Your task to perform on an android device: allow cookies in the chrome app Image 0: 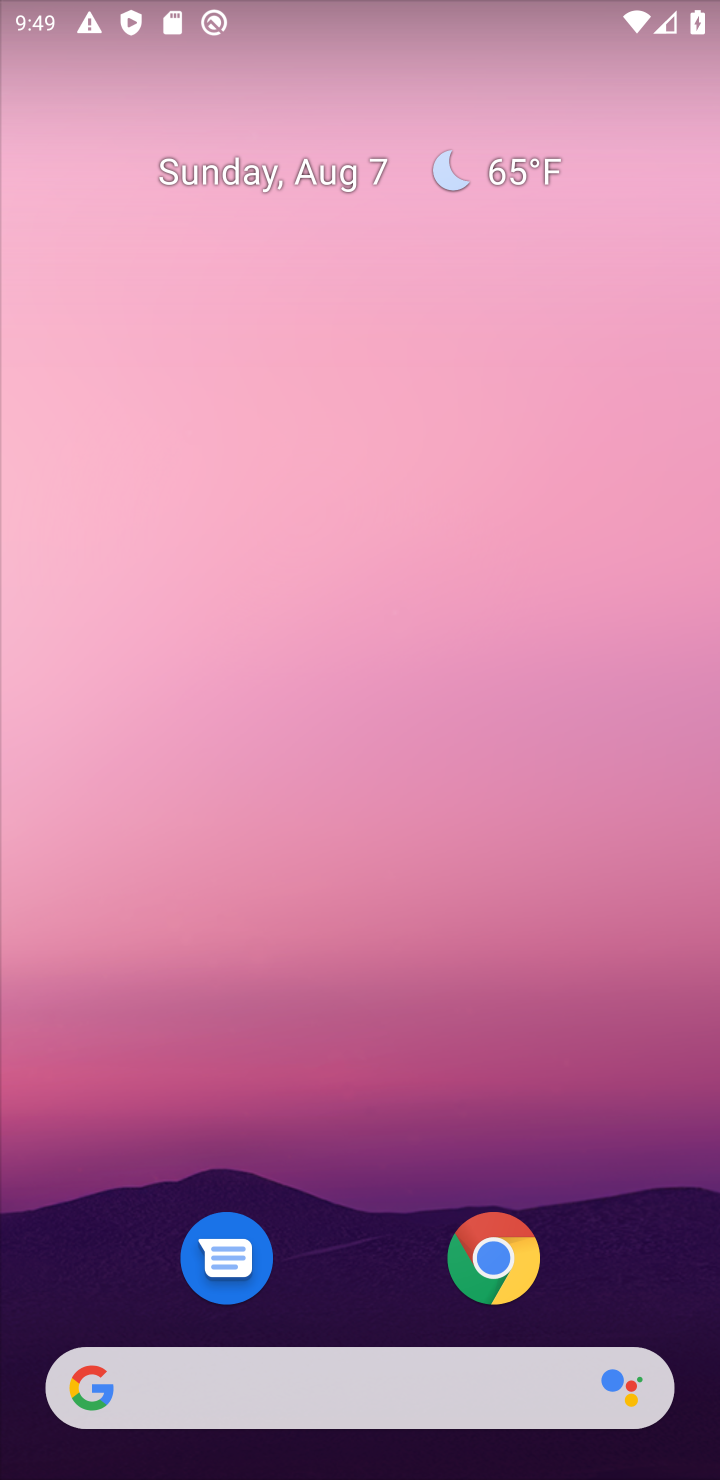
Step 0: drag from (347, 1228) to (340, 500)
Your task to perform on an android device: allow cookies in the chrome app Image 1: 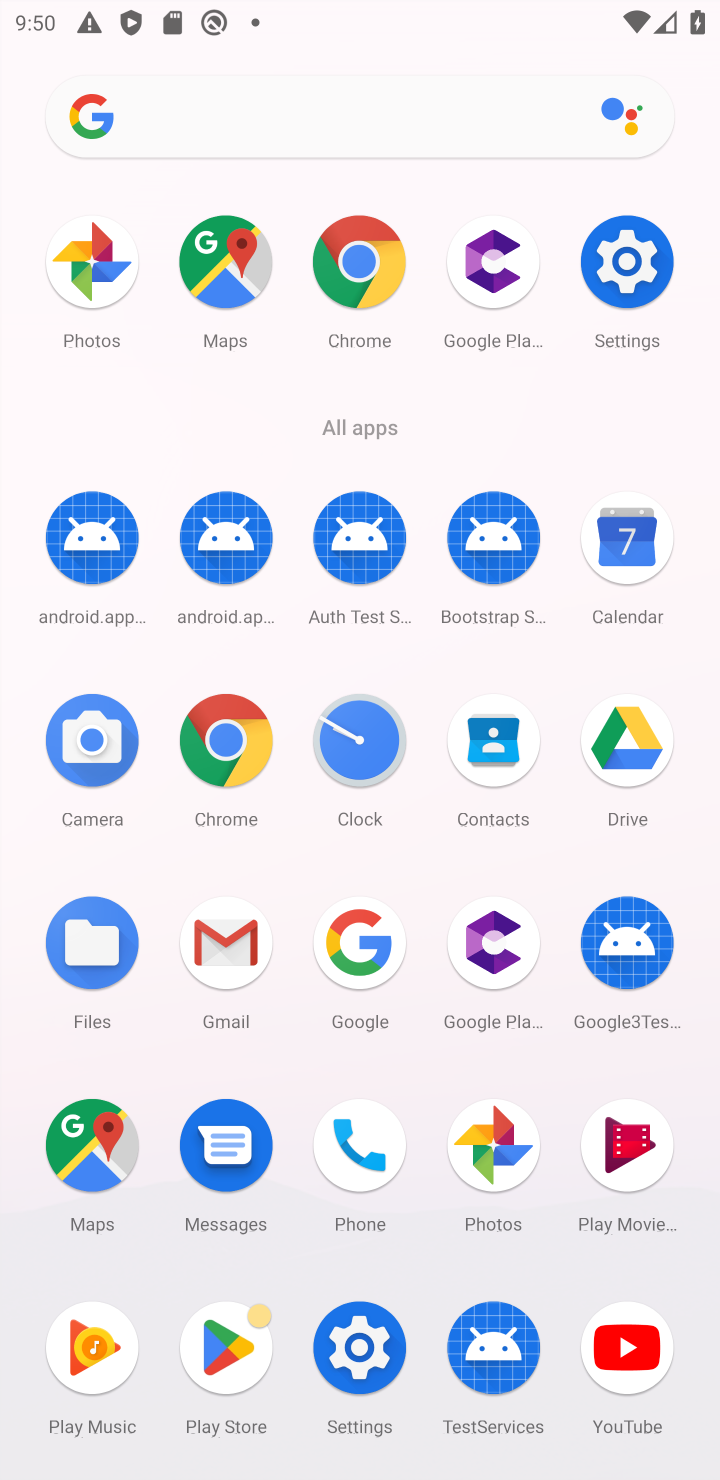
Step 1: click (229, 800)
Your task to perform on an android device: allow cookies in the chrome app Image 2: 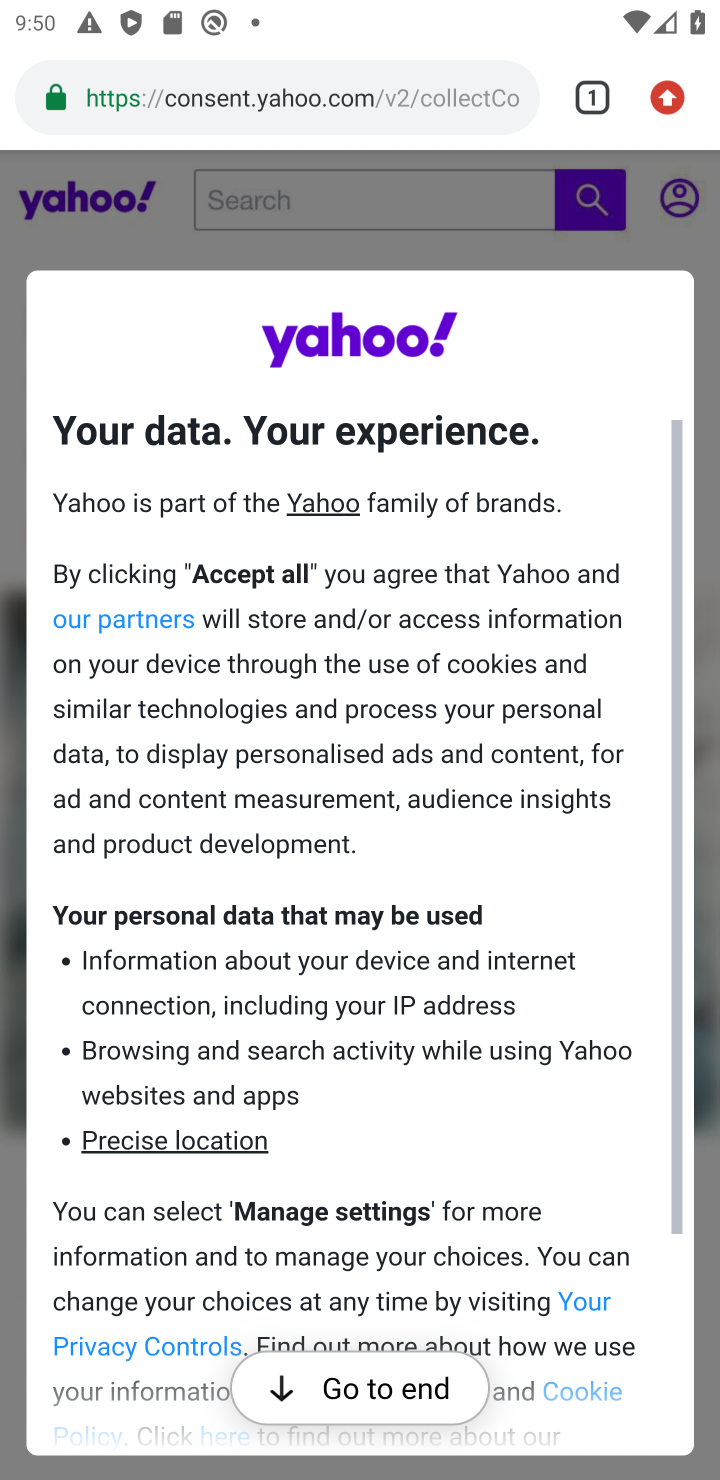
Step 2: drag from (659, 92) to (289, 1296)
Your task to perform on an android device: allow cookies in the chrome app Image 3: 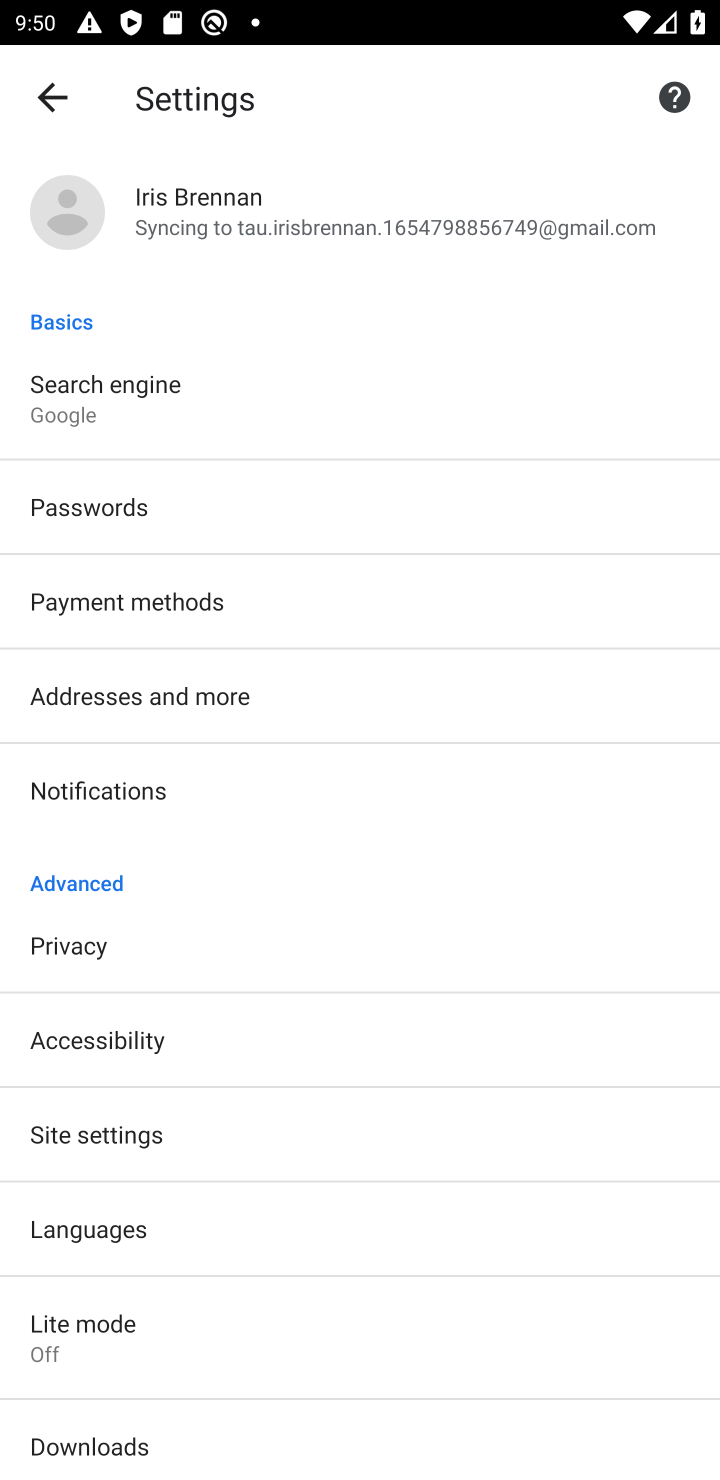
Step 3: drag from (204, 1098) to (195, 828)
Your task to perform on an android device: allow cookies in the chrome app Image 4: 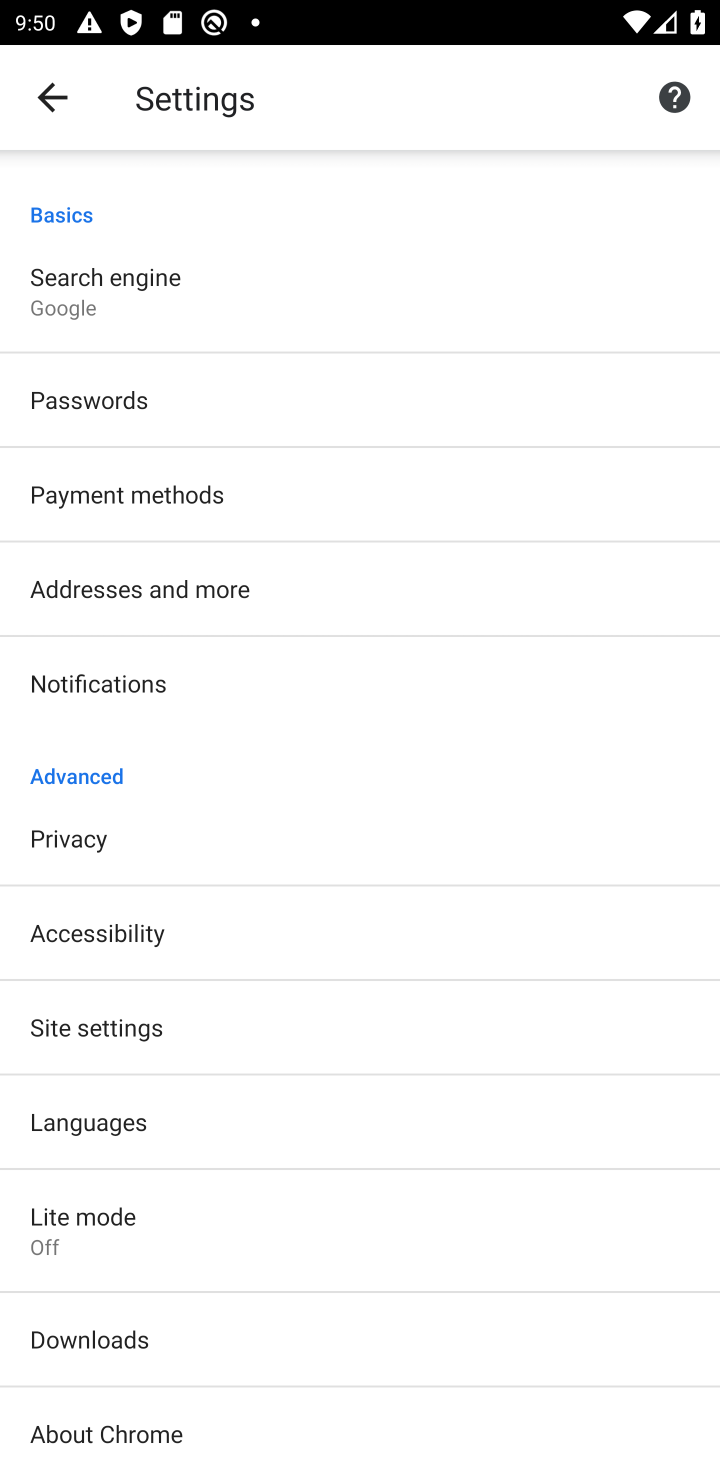
Step 4: click (162, 1020)
Your task to perform on an android device: allow cookies in the chrome app Image 5: 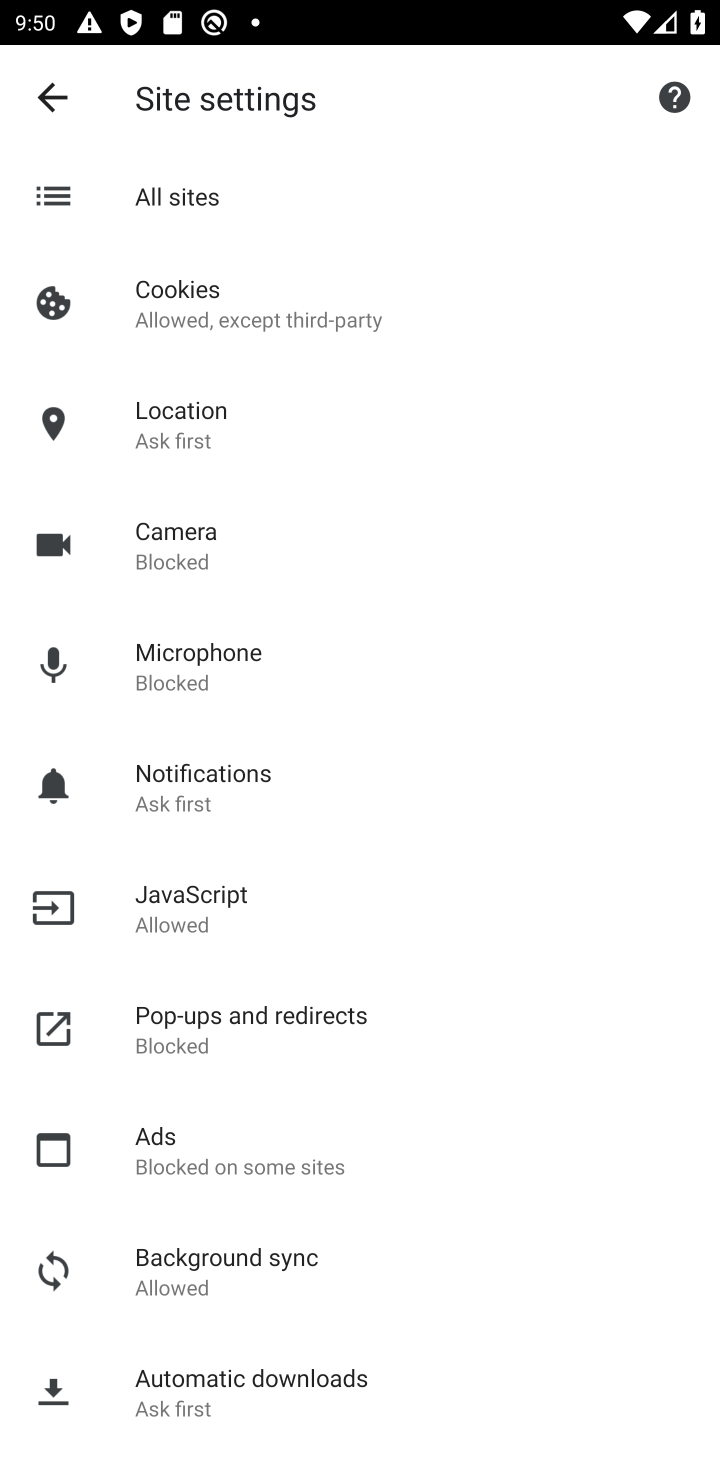
Step 5: click (188, 330)
Your task to perform on an android device: allow cookies in the chrome app Image 6: 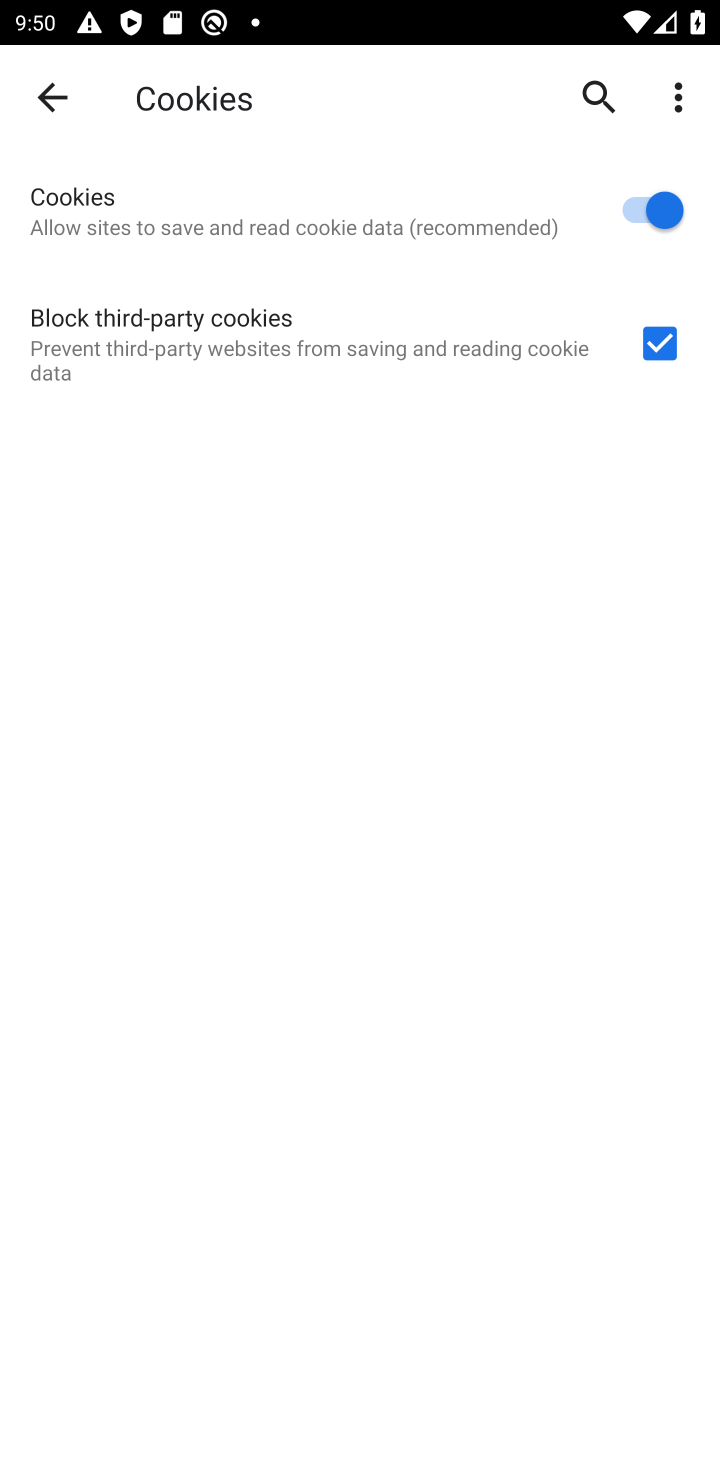
Step 6: task complete